Your task to perform on an android device: Open settings Image 0: 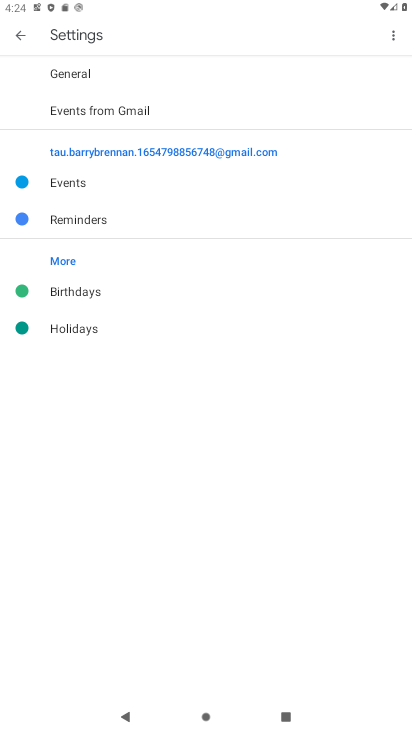
Step 0: press home button
Your task to perform on an android device: Open settings Image 1: 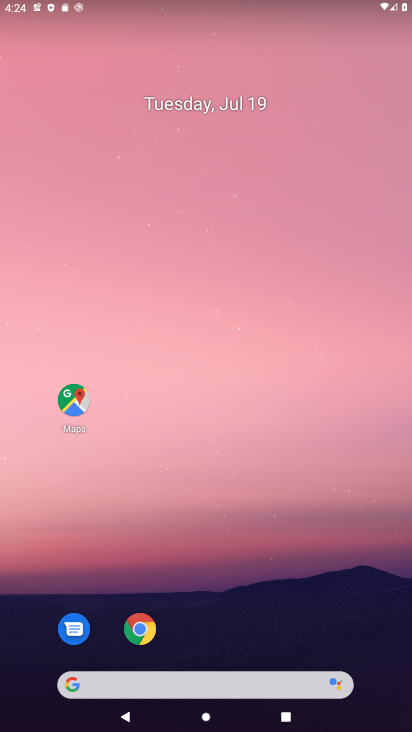
Step 1: drag from (181, 635) to (220, 335)
Your task to perform on an android device: Open settings Image 2: 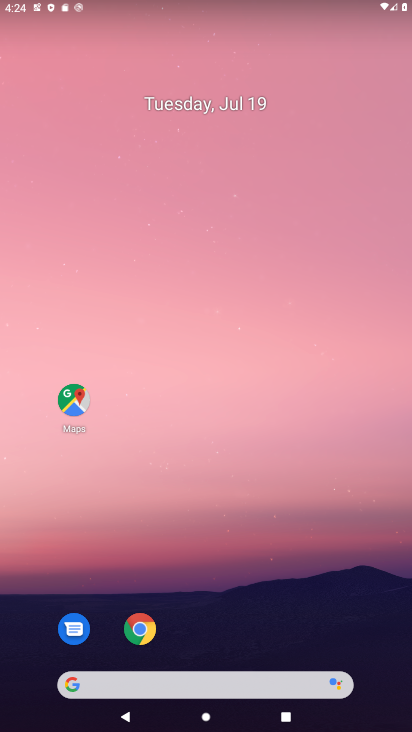
Step 2: drag from (265, 651) to (299, 242)
Your task to perform on an android device: Open settings Image 3: 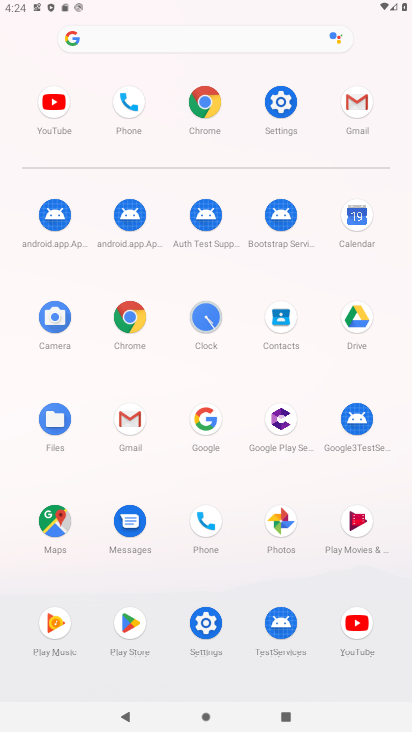
Step 3: click (281, 109)
Your task to perform on an android device: Open settings Image 4: 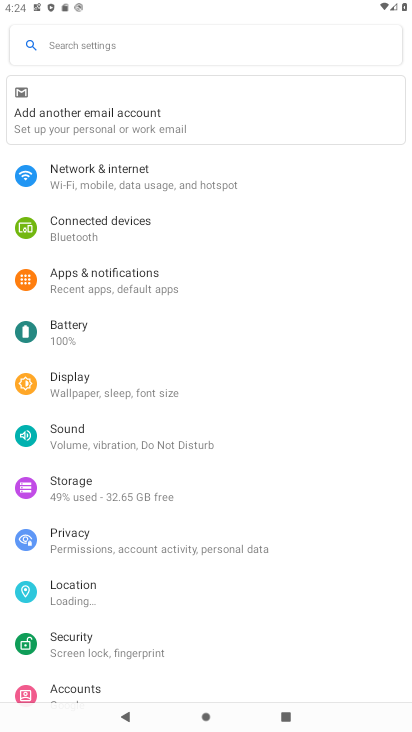
Step 4: task complete